Your task to perform on an android device: Go to CNN.com Image 0: 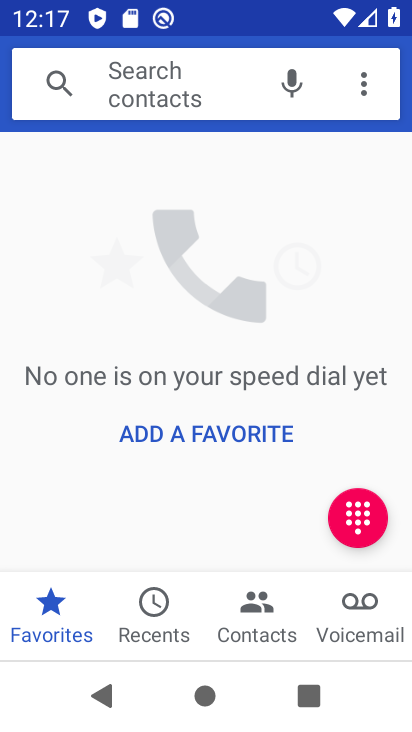
Step 0: press home button
Your task to perform on an android device: Go to CNN.com Image 1: 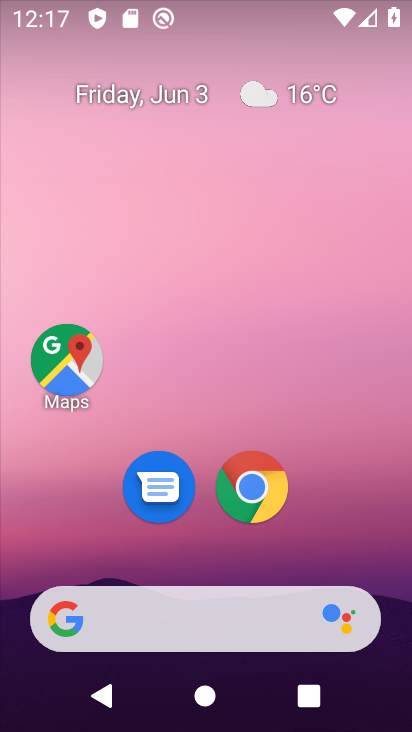
Step 1: click (263, 500)
Your task to perform on an android device: Go to CNN.com Image 2: 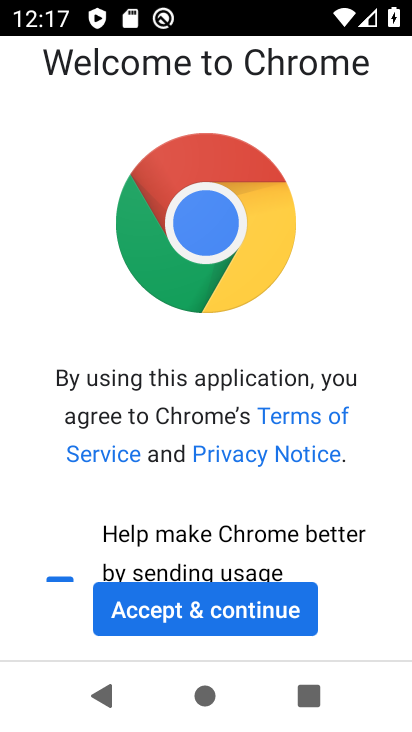
Step 2: click (206, 604)
Your task to perform on an android device: Go to CNN.com Image 3: 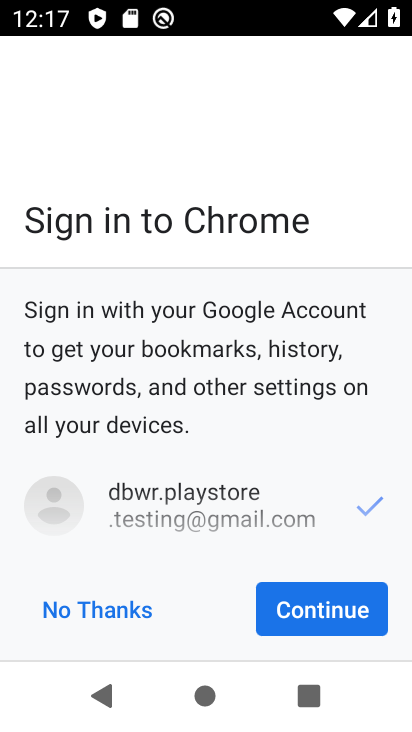
Step 3: click (375, 616)
Your task to perform on an android device: Go to CNN.com Image 4: 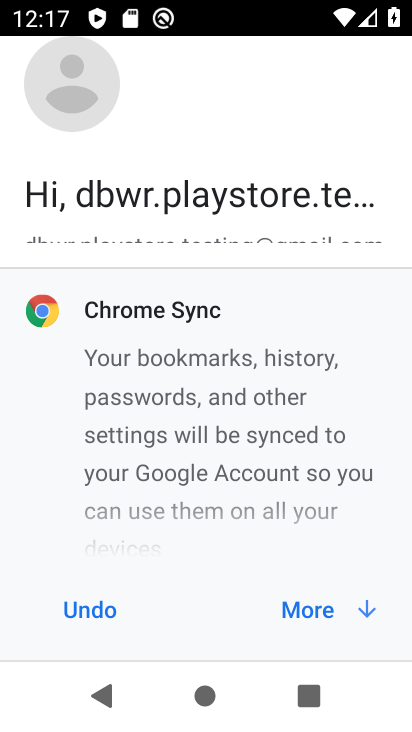
Step 4: click (375, 616)
Your task to perform on an android device: Go to CNN.com Image 5: 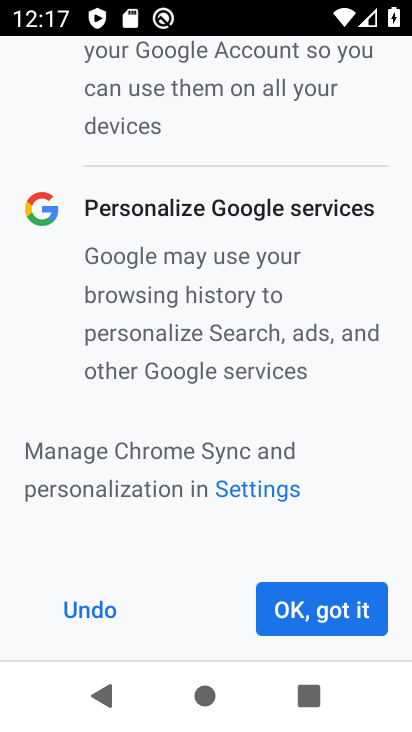
Step 5: click (375, 616)
Your task to perform on an android device: Go to CNN.com Image 6: 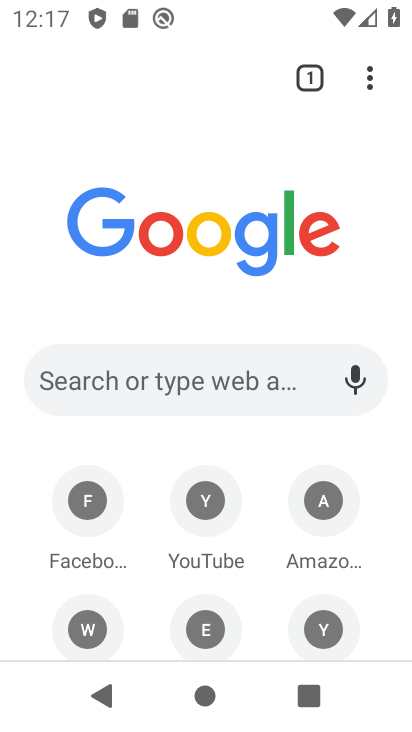
Step 6: click (164, 387)
Your task to perform on an android device: Go to CNN.com Image 7: 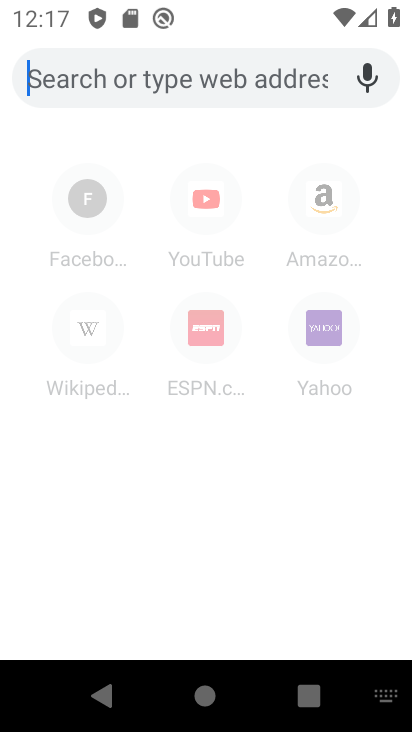
Step 7: type "cnn.com"
Your task to perform on an android device: Go to CNN.com Image 8: 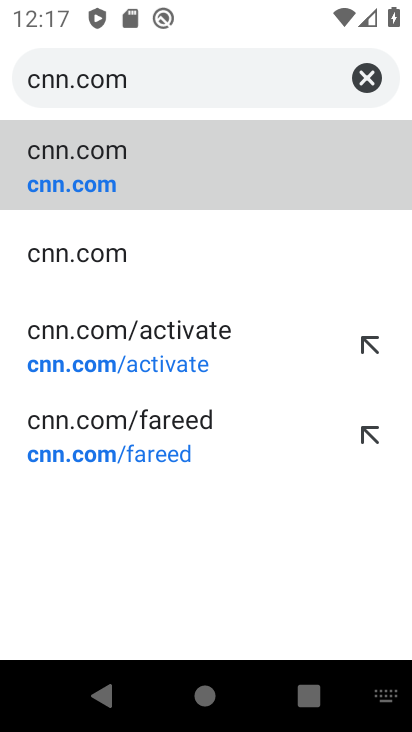
Step 8: click (160, 185)
Your task to perform on an android device: Go to CNN.com Image 9: 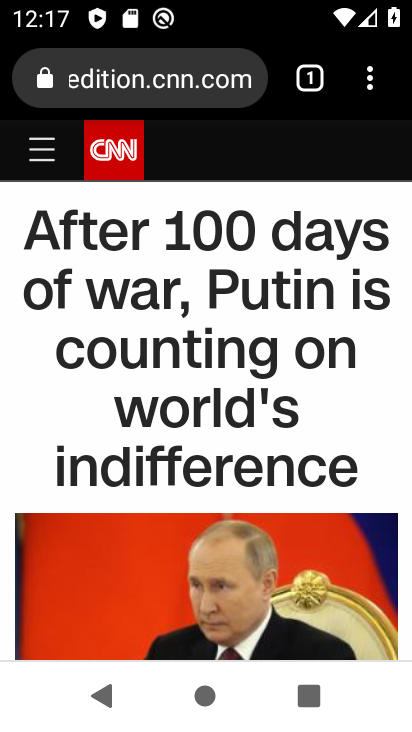
Step 9: task complete